Your task to perform on an android device: Open Yahoo.com Image 0: 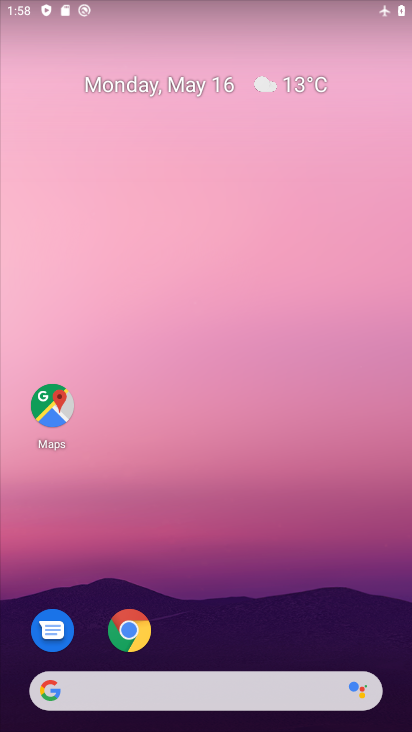
Step 0: click (147, 633)
Your task to perform on an android device: Open Yahoo.com Image 1: 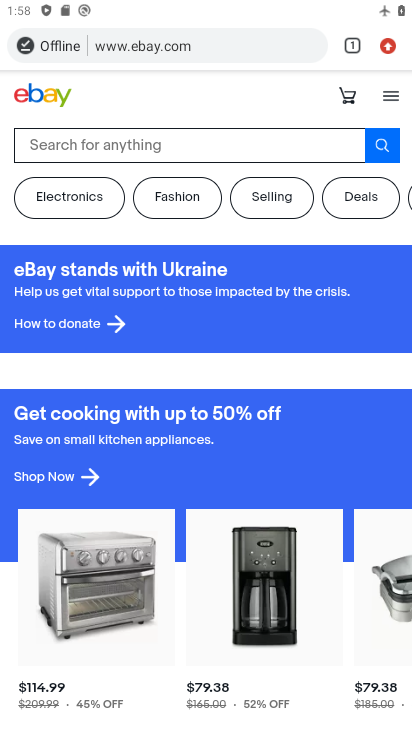
Step 1: click (215, 44)
Your task to perform on an android device: Open Yahoo.com Image 2: 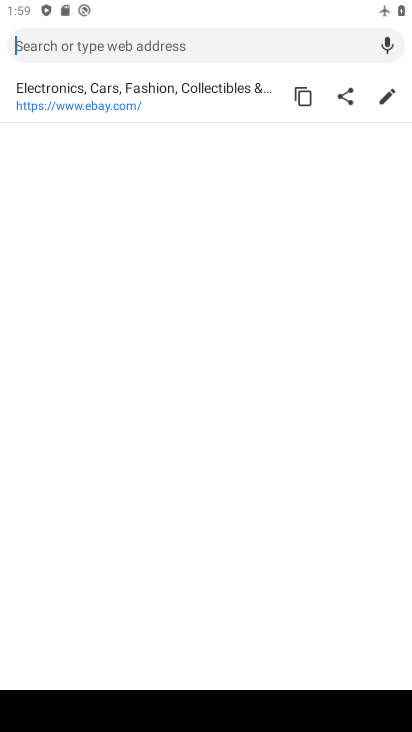
Step 2: type "yahoo.com"
Your task to perform on an android device: Open Yahoo.com Image 3: 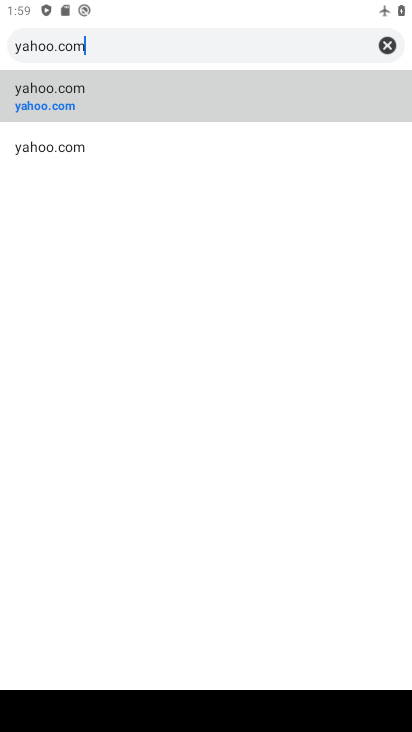
Step 3: click (52, 96)
Your task to perform on an android device: Open Yahoo.com Image 4: 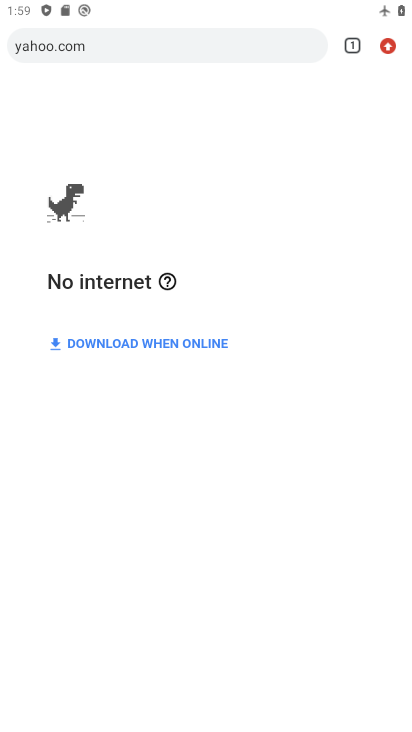
Step 4: task complete